Your task to perform on an android device: Empty the shopping cart on costco.com. Search for razer deathadder on costco.com, select the first entry, and add it to the cart. Image 0: 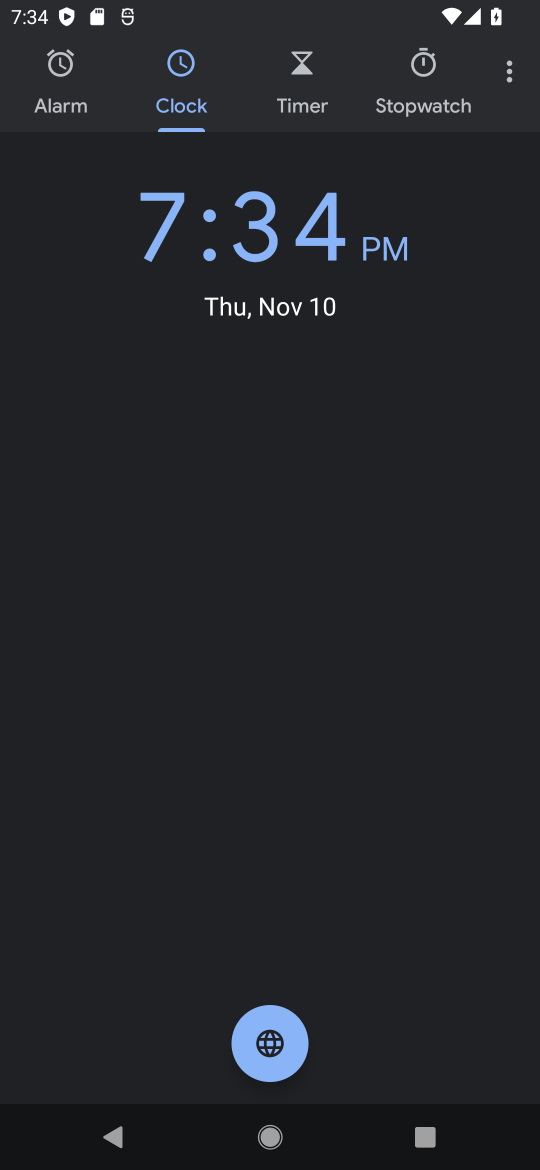
Step 0: press home button
Your task to perform on an android device: Empty the shopping cart on costco.com. Search for razer deathadder on costco.com, select the first entry, and add it to the cart. Image 1: 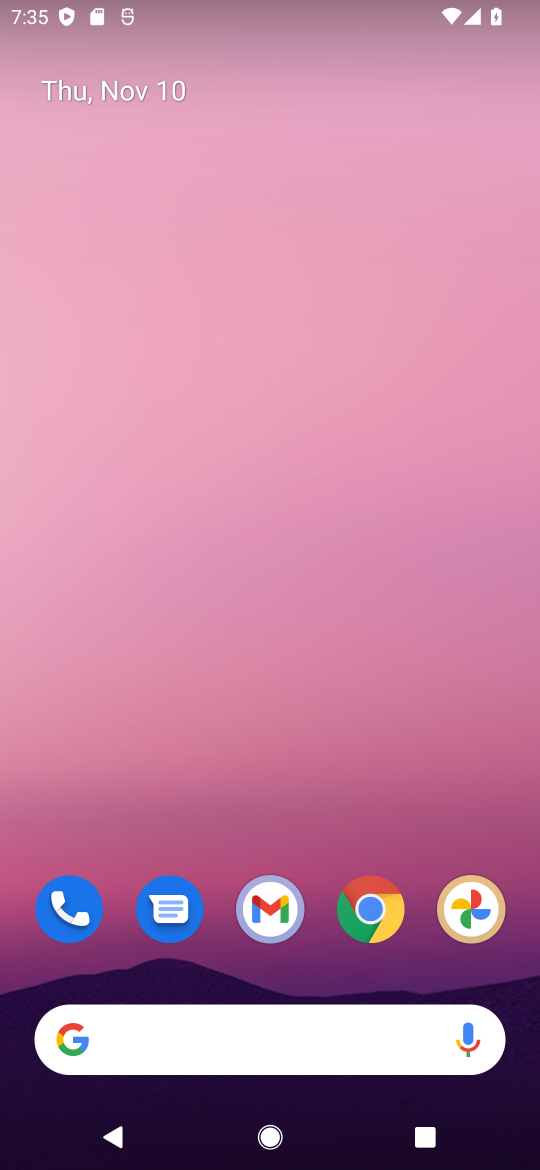
Step 1: drag from (133, 1018) to (249, 306)
Your task to perform on an android device: Empty the shopping cart on costco.com. Search for razer deathadder on costco.com, select the first entry, and add it to the cart. Image 2: 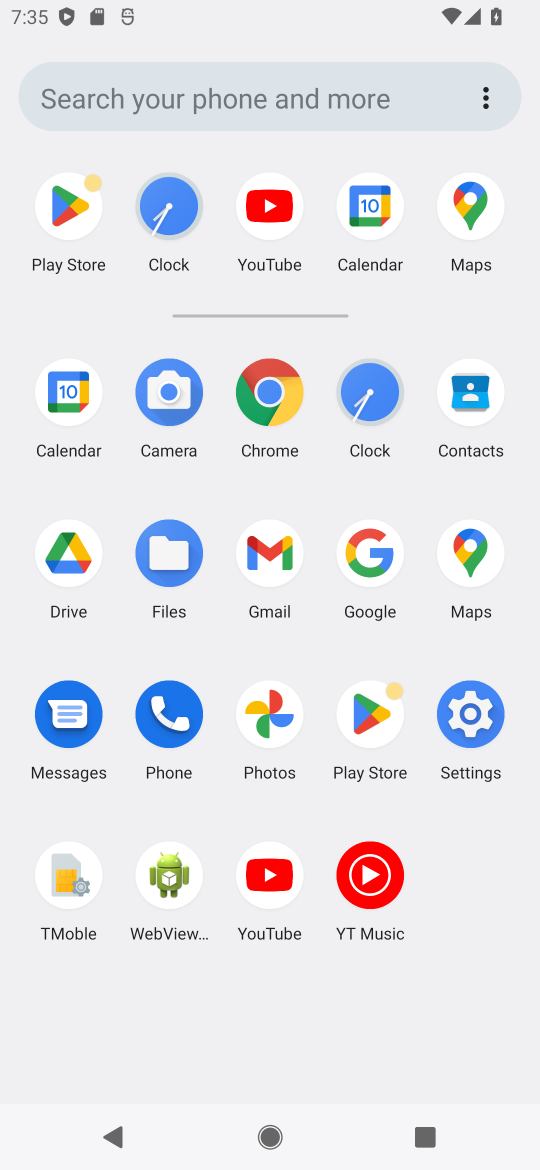
Step 2: click (366, 541)
Your task to perform on an android device: Empty the shopping cart on costco.com. Search for razer deathadder on costco.com, select the first entry, and add it to the cart. Image 3: 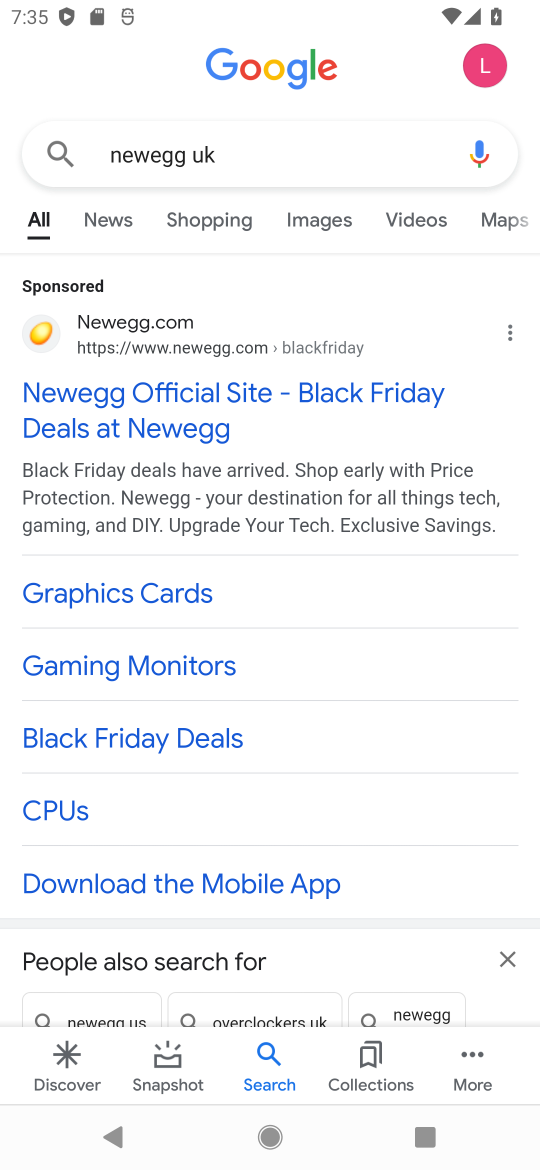
Step 3: click (237, 147)
Your task to perform on an android device: Empty the shopping cart on costco.com. Search for razer deathadder on costco.com, select the first entry, and add it to the cart. Image 4: 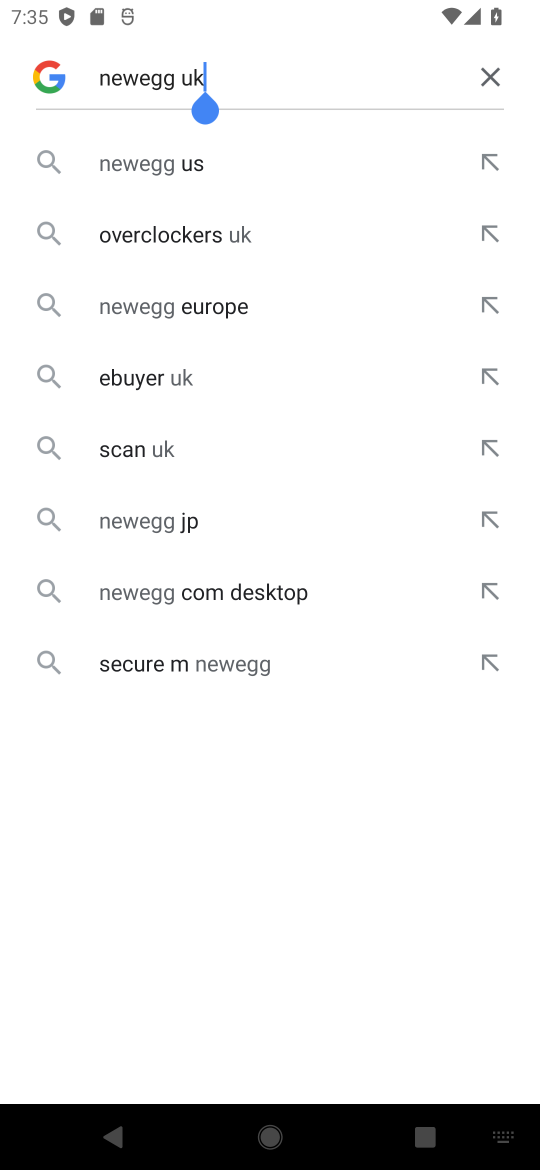
Step 4: click (487, 74)
Your task to perform on an android device: Empty the shopping cart on costco.com. Search for razer deathadder on costco.com, select the first entry, and add it to the cart. Image 5: 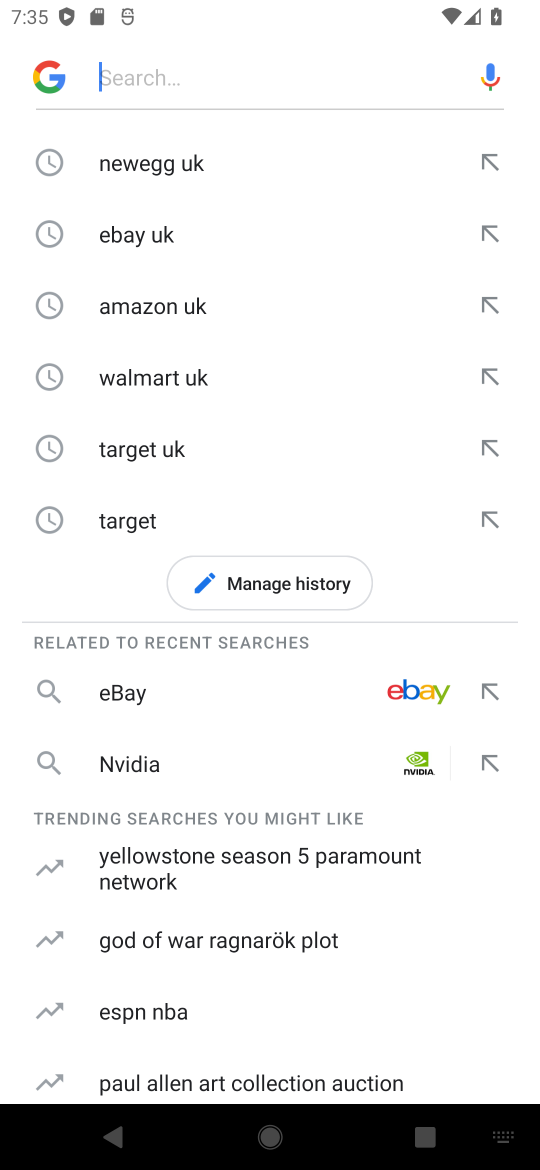
Step 5: click (224, 61)
Your task to perform on an android device: Empty the shopping cart on costco.com. Search for razer deathadder on costco.com, select the first entry, and add it to the cart. Image 6: 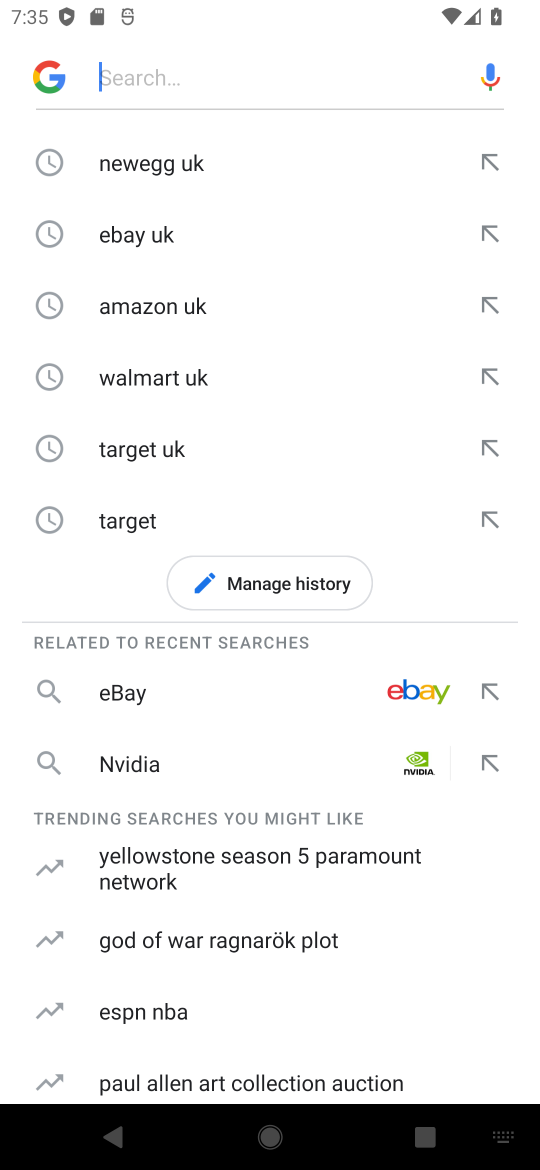
Step 6: type "costco "
Your task to perform on an android device: Empty the shopping cart on costco.com. Search for razer deathadder on costco.com, select the first entry, and add it to the cart. Image 7: 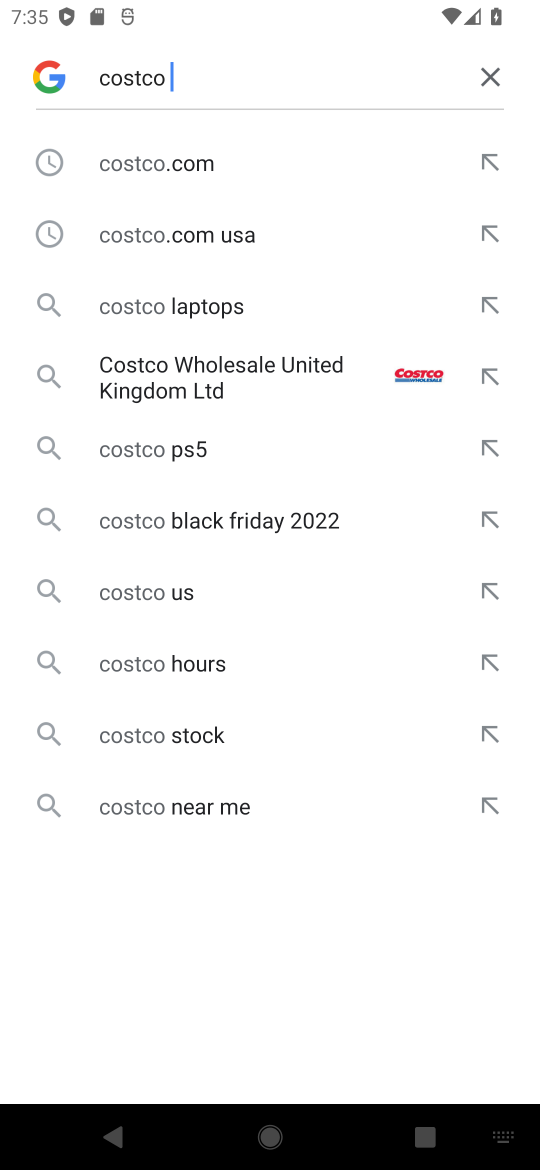
Step 7: click (207, 157)
Your task to perform on an android device: Empty the shopping cart on costco.com. Search for razer deathadder on costco.com, select the first entry, and add it to the cart. Image 8: 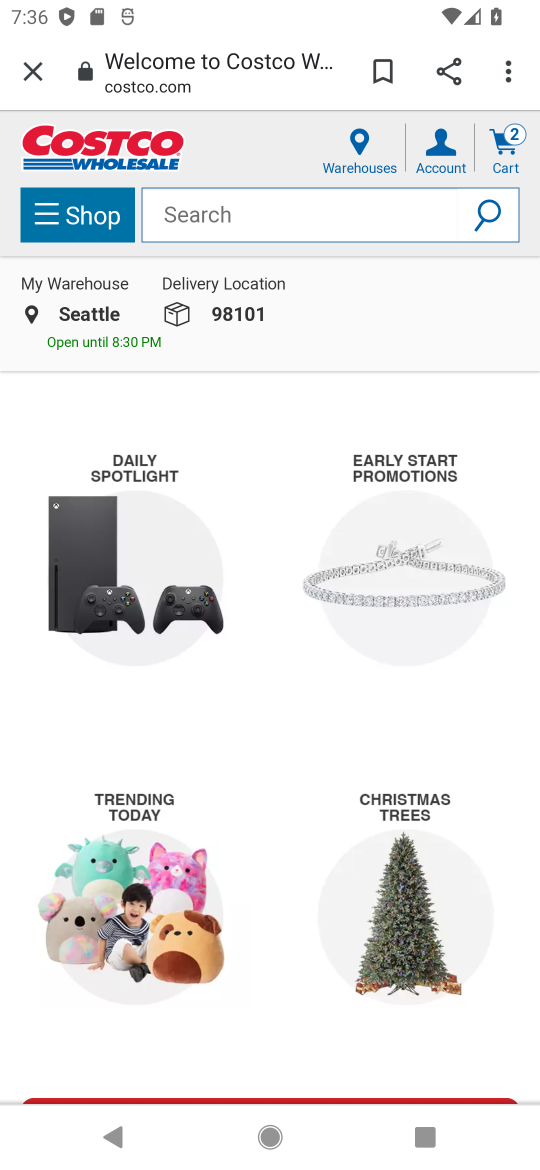
Step 8: click (180, 209)
Your task to perform on an android device: Empty the shopping cart on costco.com. Search for razer deathadder on costco.com, select the first entry, and add it to the cart. Image 9: 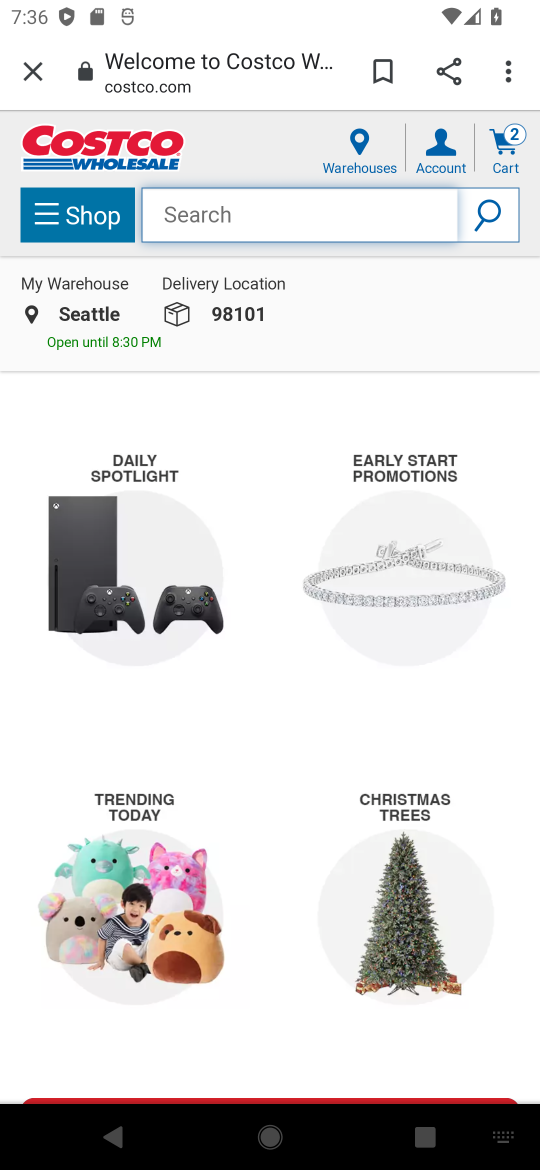
Step 9: type "razer deathadder "
Your task to perform on an android device: Empty the shopping cart on costco.com. Search for razer deathadder on costco.com, select the first entry, and add it to the cart. Image 10: 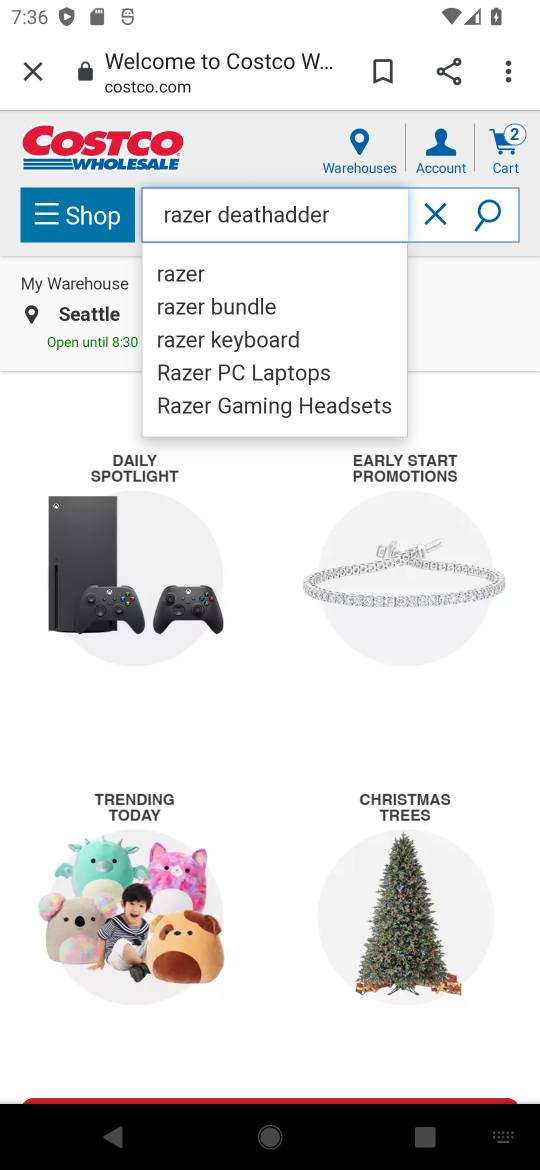
Step 10: click (476, 193)
Your task to perform on an android device: Empty the shopping cart on costco.com. Search for razer deathadder on costco.com, select the first entry, and add it to the cart. Image 11: 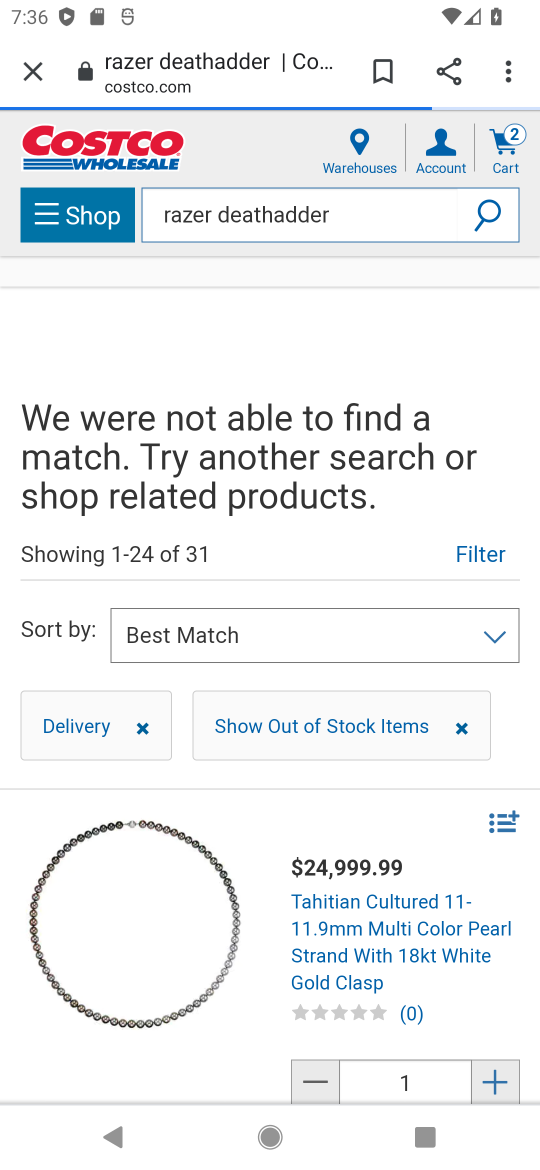
Step 11: drag from (354, 921) to (488, 315)
Your task to perform on an android device: Empty the shopping cart on costco.com. Search for razer deathadder on costco.com, select the first entry, and add it to the cart. Image 12: 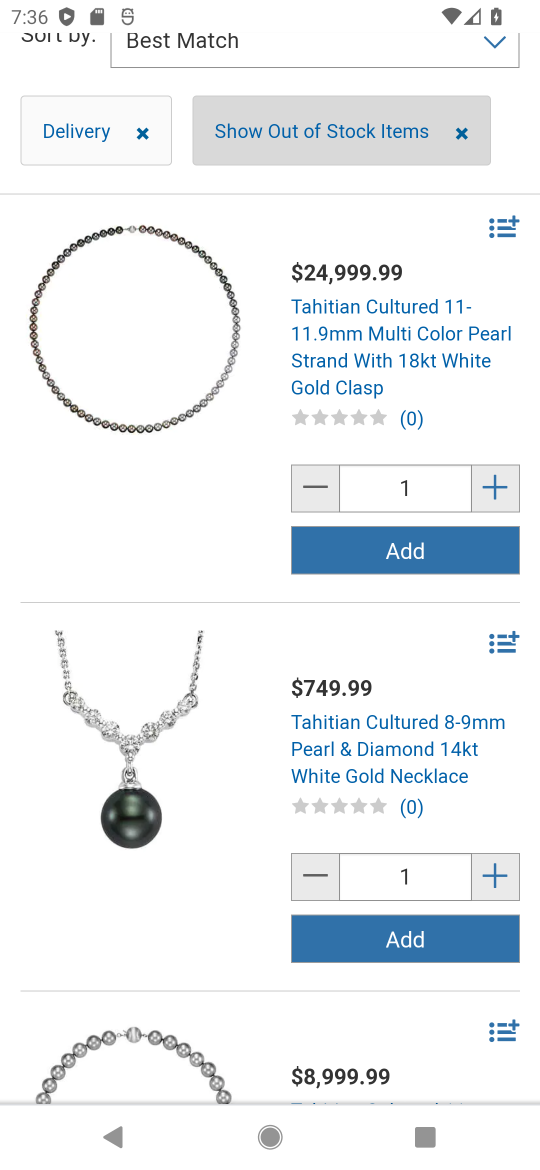
Step 12: drag from (205, 859) to (197, 339)
Your task to perform on an android device: Empty the shopping cart on costco.com. Search for razer deathadder on costco.com, select the first entry, and add it to the cart. Image 13: 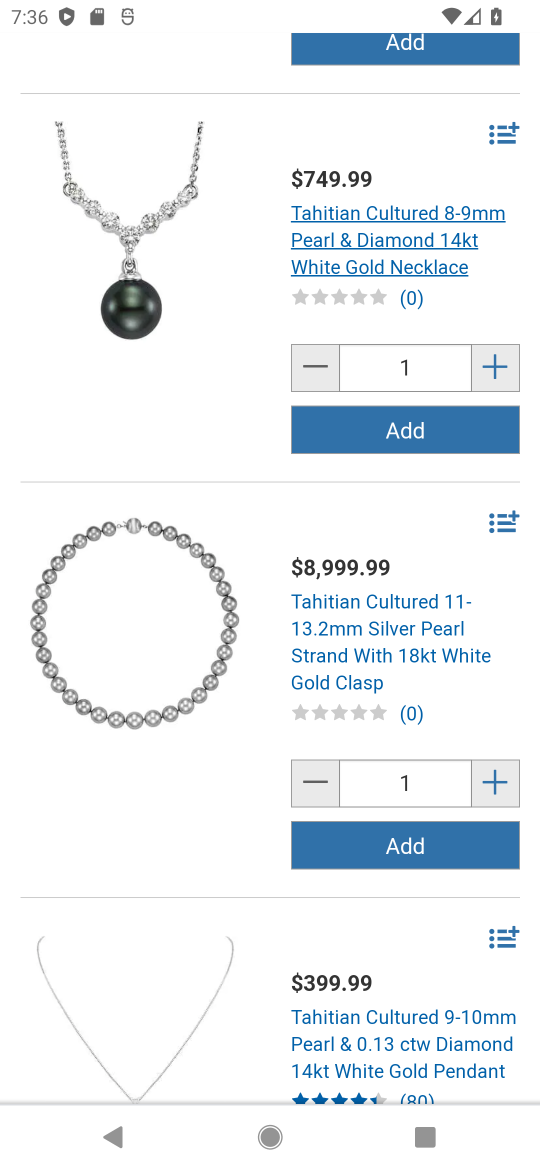
Step 13: drag from (64, 902) to (234, 354)
Your task to perform on an android device: Empty the shopping cart on costco.com. Search for razer deathadder on costco.com, select the first entry, and add it to the cart. Image 14: 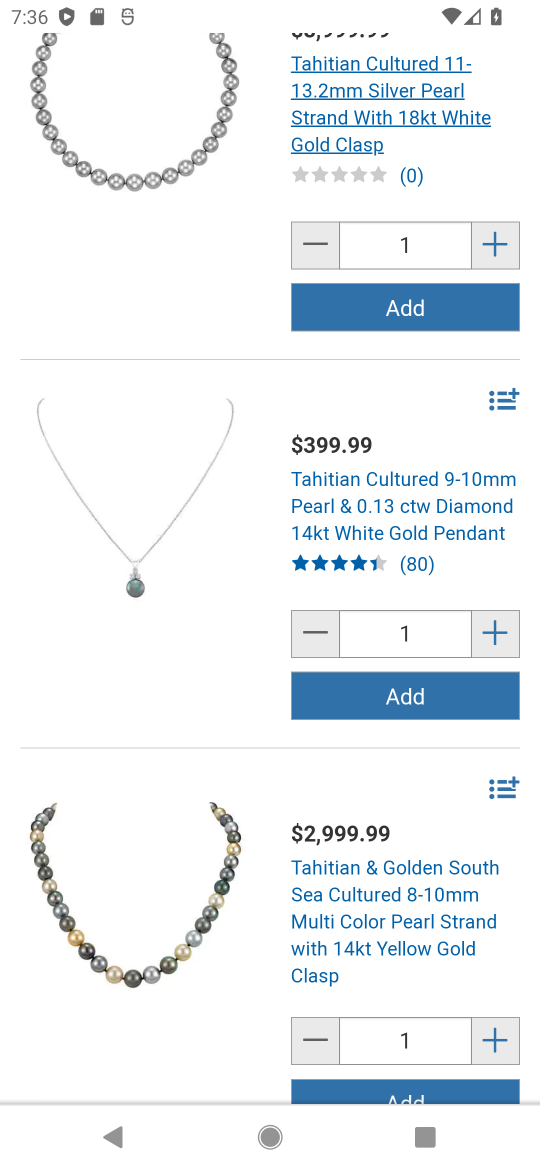
Step 14: drag from (350, 160) to (235, 1157)
Your task to perform on an android device: Empty the shopping cart on costco.com. Search for razer deathadder on costco.com, select the first entry, and add it to the cart. Image 15: 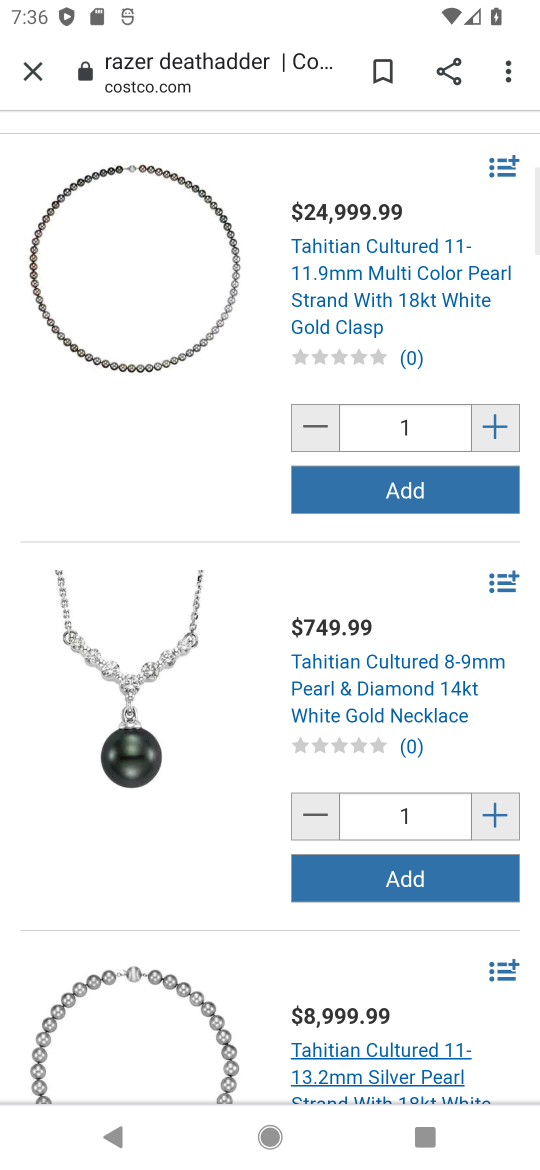
Step 15: drag from (287, 371) to (237, 742)
Your task to perform on an android device: Empty the shopping cart on costco.com. Search for razer deathadder on costco.com, select the first entry, and add it to the cart. Image 16: 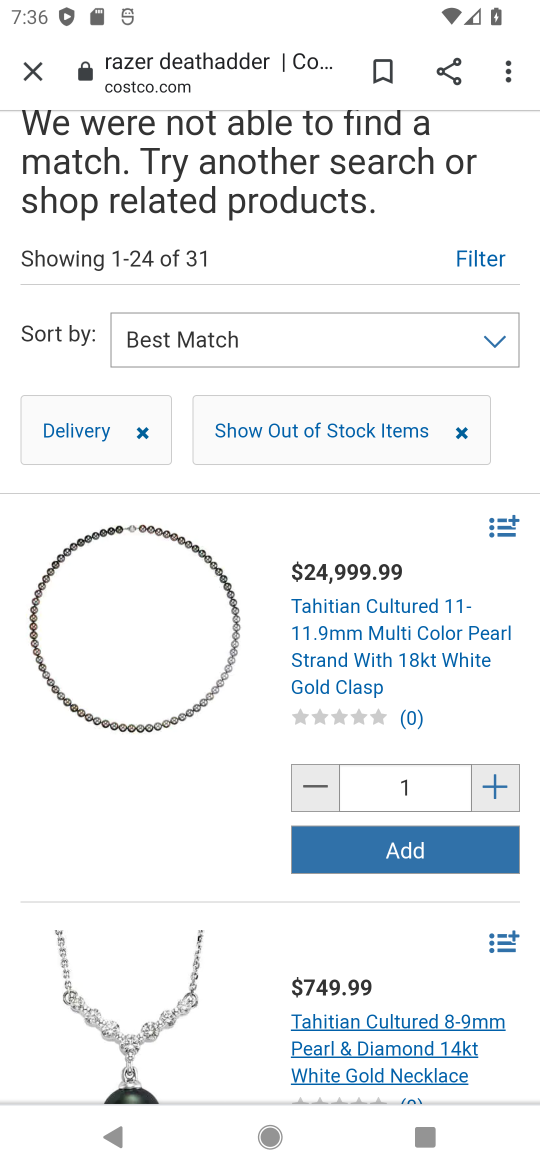
Step 16: drag from (196, 226) to (154, 1156)
Your task to perform on an android device: Empty the shopping cart on costco.com. Search for razer deathadder on costco.com, select the first entry, and add it to the cart. Image 17: 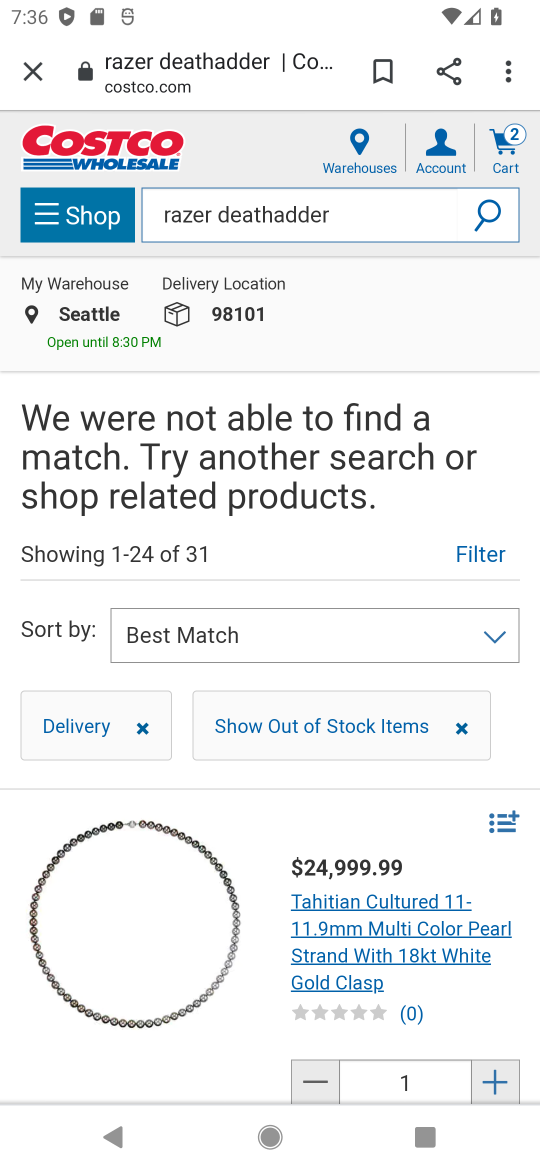
Step 17: click (322, 208)
Your task to perform on an android device: Empty the shopping cart on costco.com. Search for razer deathadder on costco.com, select the first entry, and add it to the cart. Image 18: 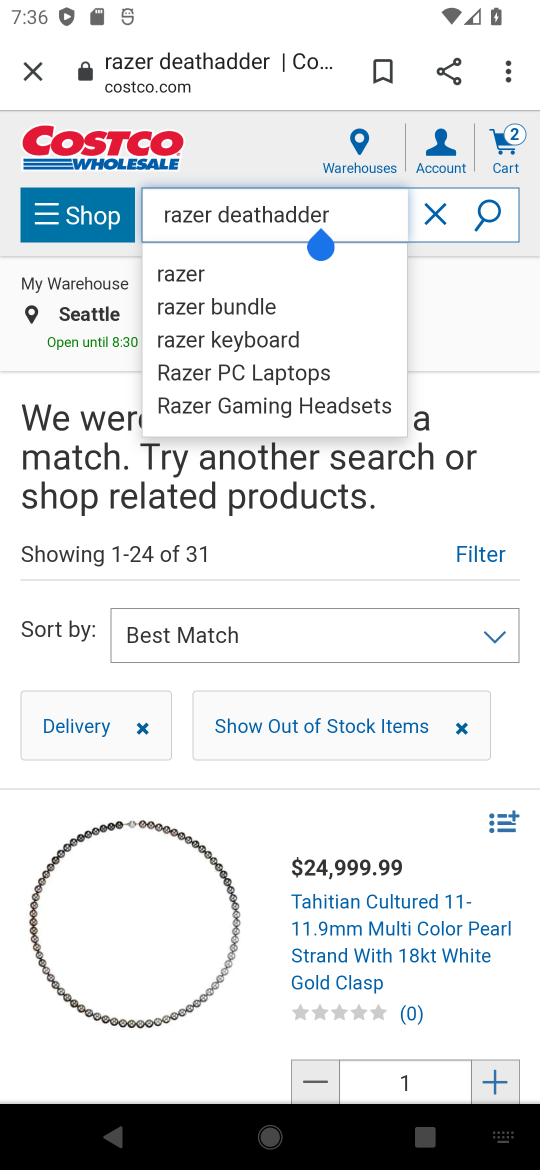
Step 18: click (437, 206)
Your task to perform on an android device: Empty the shopping cart on costco.com. Search for razer deathadder on costco.com, select the first entry, and add it to the cart. Image 19: 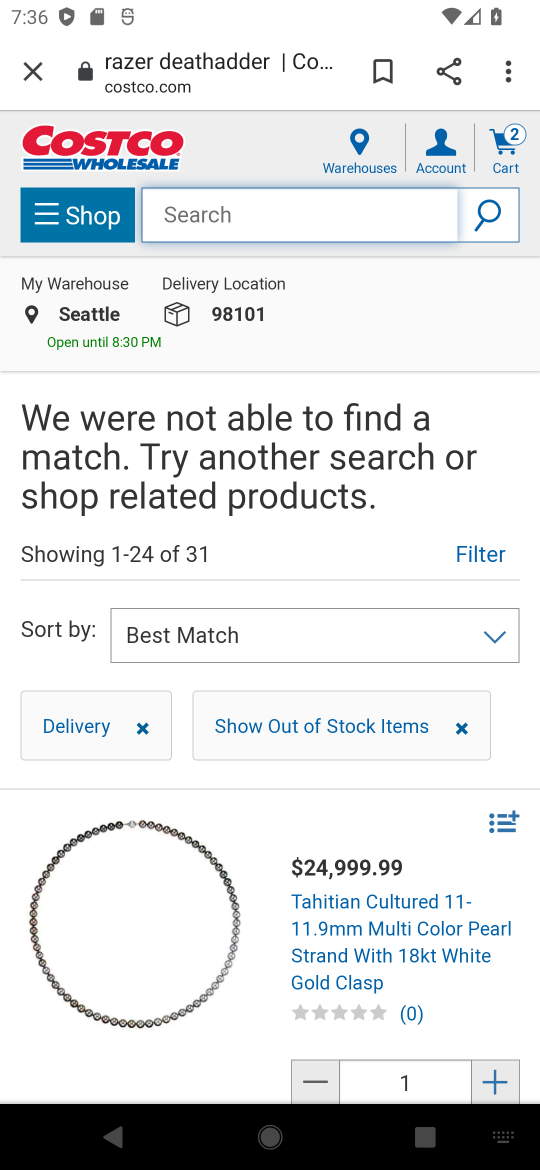
Step 19: click (265, 191)
Your task to perform on an android device: Empty the shopping cart on costco.com. Search for razer deathadder on costco.com, select the first entry, and add it to the cart. Image 20: 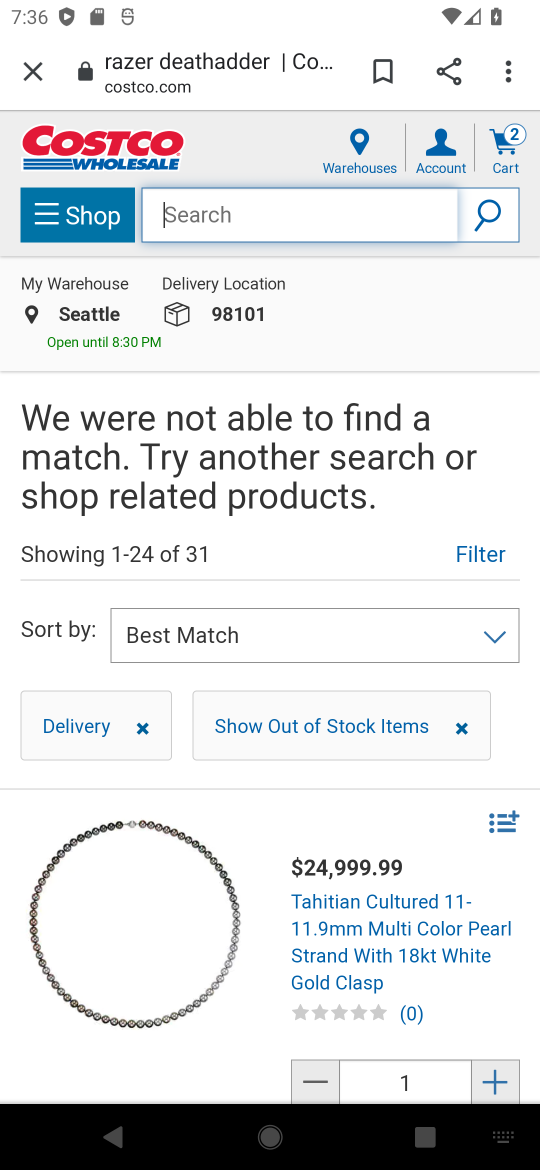
Step 20: click (265, 197)
Your task to perform on an android device: Empty the shopping cart on costco.com. Search for razer deathadder on costco.com, select the first entry, and add it to the cart. Image 21: 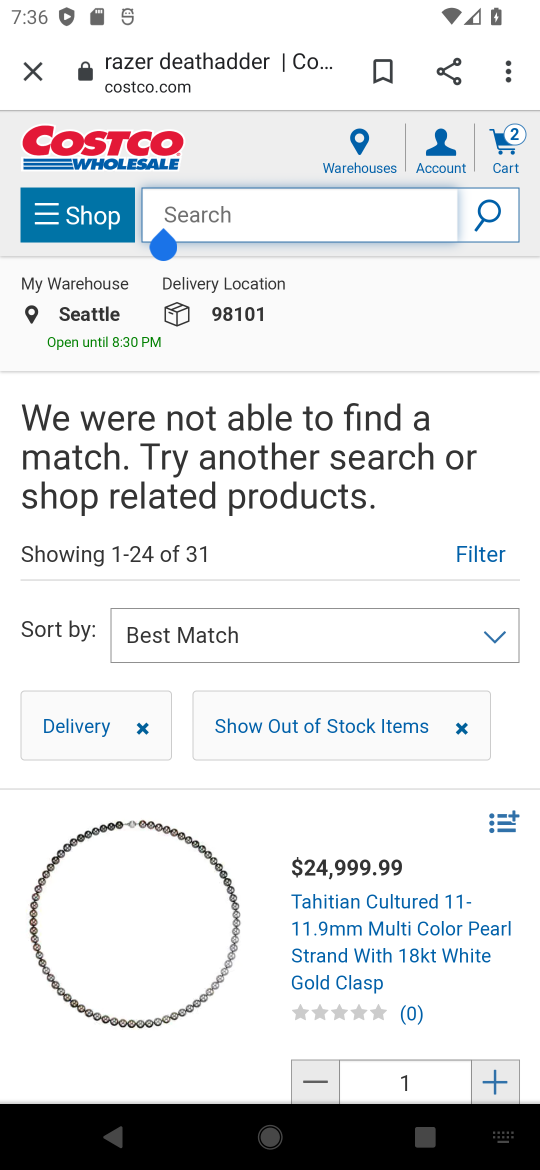
Step 21: type "razer "
Your task to perform on an android device: Empty the shopping cart on costco.com. Search for razer deathadder on costco.com, select the first entry, and add it to the cart. Image 22: 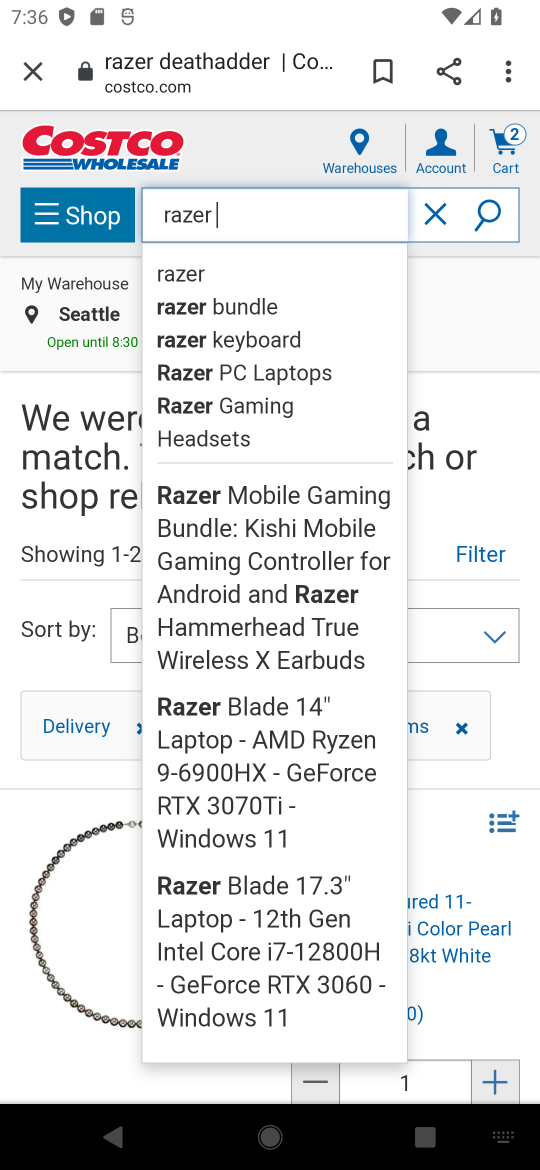
Step 22: click (483, 204)
Your task to perform on an android device: Empty the shopping cart on costco.com. Search for razer deathadder on costco.com, select the first entry, and add it to the cart. Image 23: 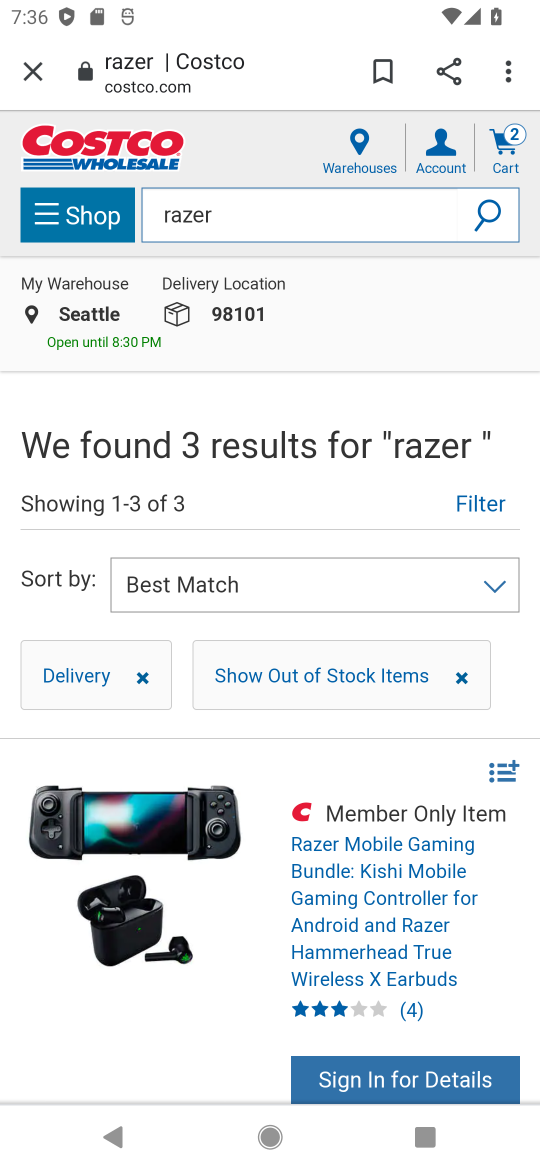
Step 23: drag from (229, 910) to (339, 375)
Your task to perform on an android device: Empty the shopping cart on costco.com. Search for razer deathadder on costco.com, select the first entry, and add it to the cart. Image 24: 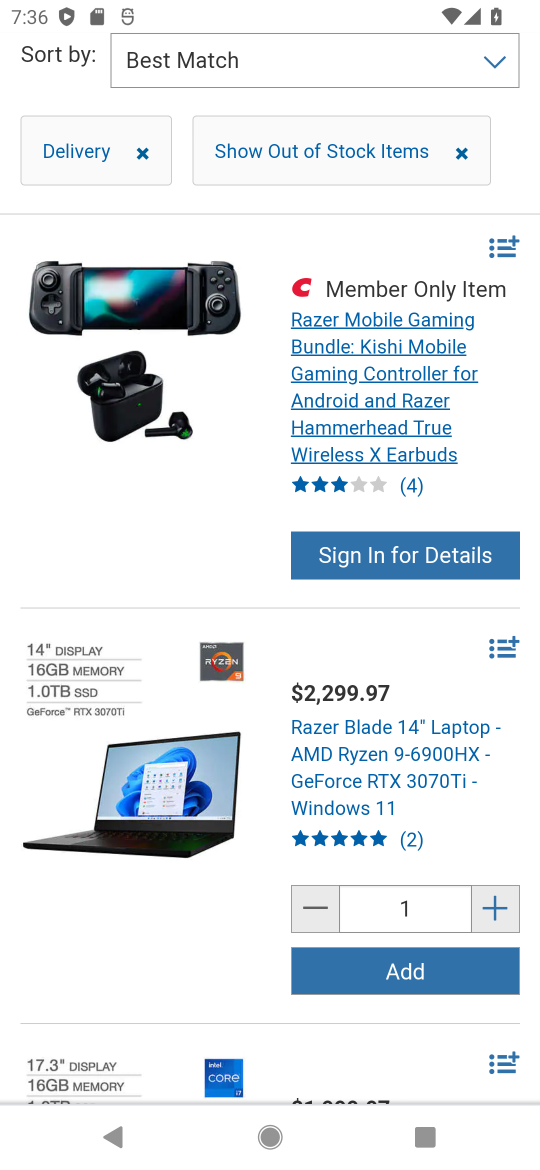
Step 24: drag from (137, 842) to (199, 360)
Your task to perform on an android device: Empty the shopping cart on costco.com. Search for razer deathadder on costco.com, select the first entry, and add it to the cart. Image 25: 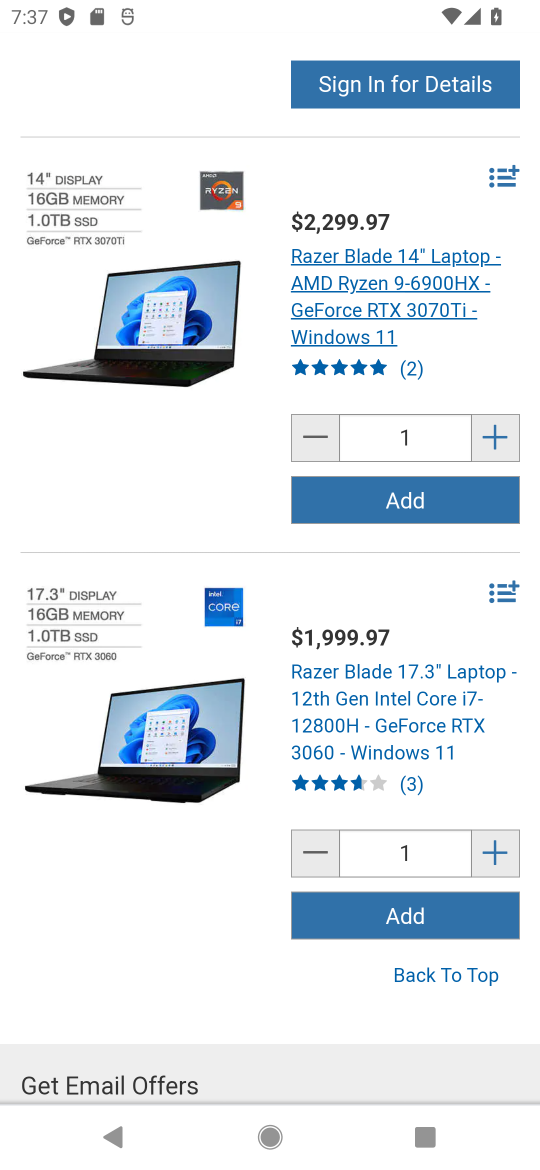
Step 25: drag from (224, 963) to (254, 669)
Your task to perform on an android device: Empty the shopping cart on costco.com. Search for razer deathadder on costco.com, select the first entry, and add it to the cart. Image 26: 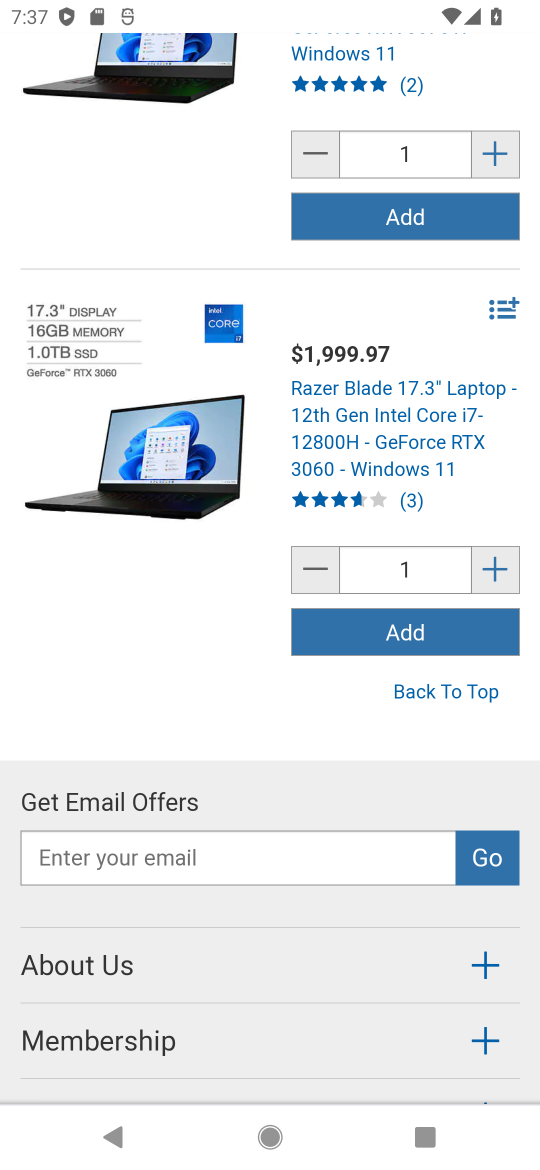
Step 26: drag from (214, 202) to (175, 1033)
Your task to perform on an android device: Empty the shopping cart on costco.com. Search for razer deathadder on costco.com, select the first entry, and add it to the cart. Image 27: 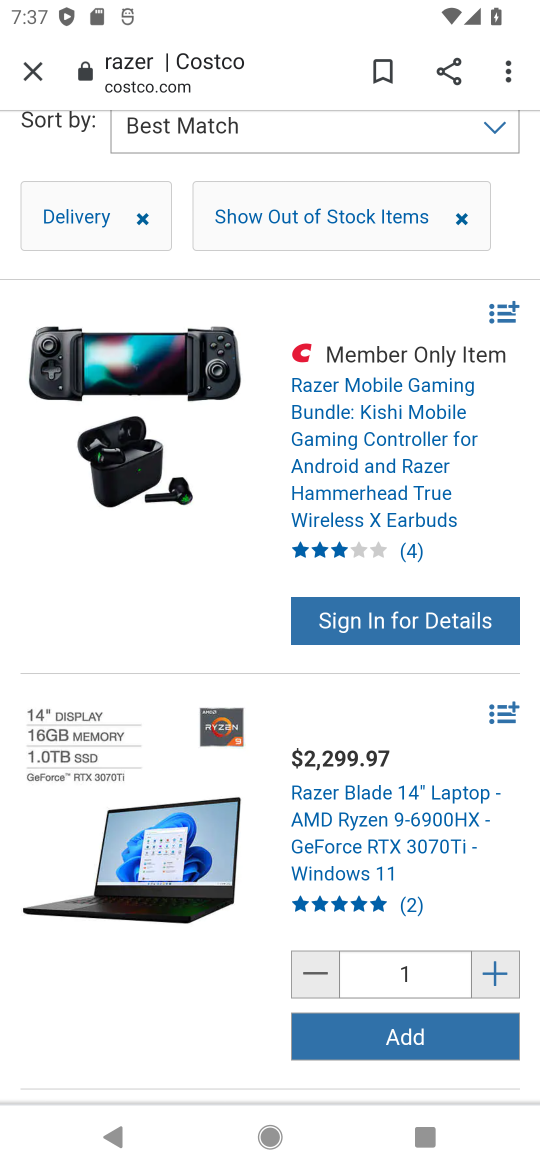
Step 27: drag from (248, 482) to (296, 267)
Your task to perform on an android device: Empty the shopping cart on costco.com. Search for razer deathadder on costco.com, select the first entry, and add it to the cart. Image 28: 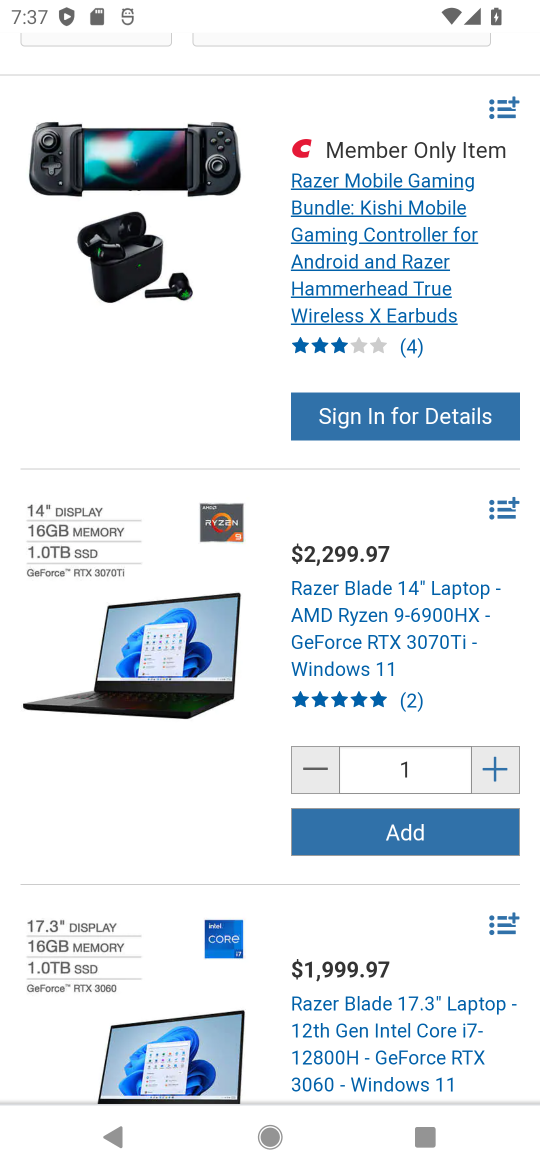
Step 28: drag from (247, 984) to (353, 310)
Your task to perform on an android device: Empty the shopping cart on costco.com. Search for razer deathadder on costco.com, select the first entry, and add it to the cart. Image 29: 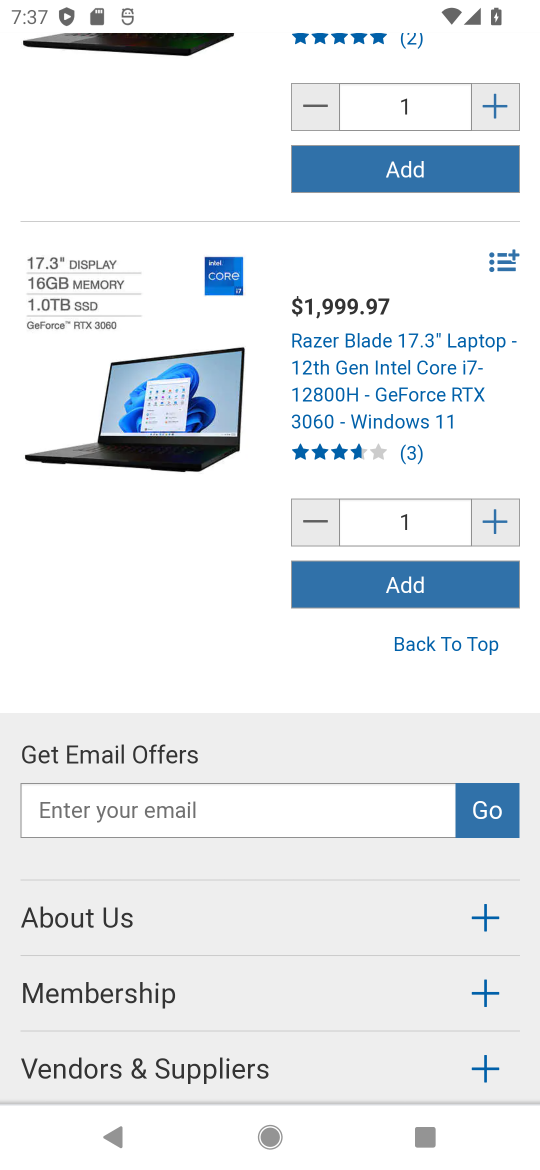
Step 29: click (325, 312)
Your task to perform on an android device: Empty the shopping cart on costco.com. Search for razer deathadder on costco.com, select the first entry, and add it to the cart. Image 30: 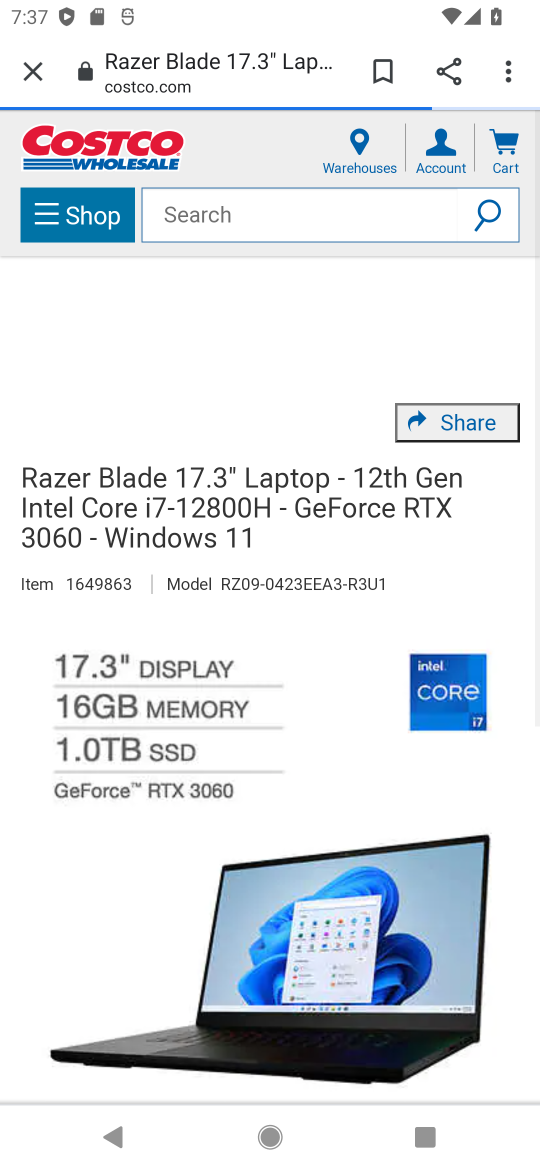
Step 30: drag from (287, 1038) to (396, 407)
Your task to perform on an android device: Empty the shopping cart on costco.com. Search for razer deathadder on costco.com, select the first entry, and add it to the cart. Image 31: 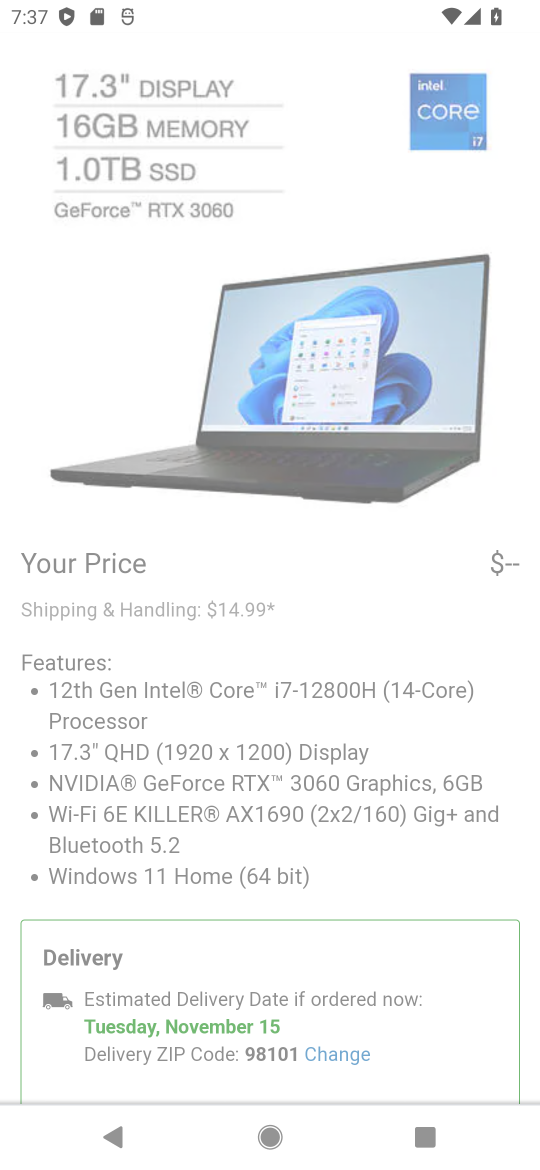
Step 31: drag from (227, 958) to (361, 401)
Your task to perform on an android device: Empty the shopping cart on costco.com. Search for razer deathadder on costco.com, select the first entry, and add it to the cart. Image 32: 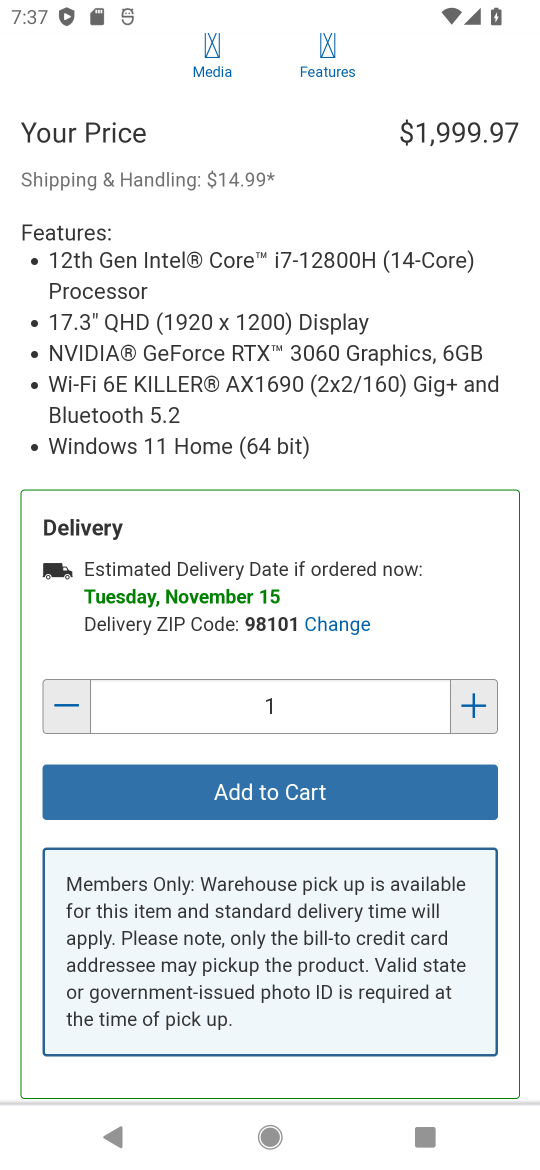
Step 32: click (280, 691)
Your task to perform on an android device: Empty the shopping cart on costco.com. Search for razer deathadder on costco.com, select the first entry, and add it to the cart. Image 33: 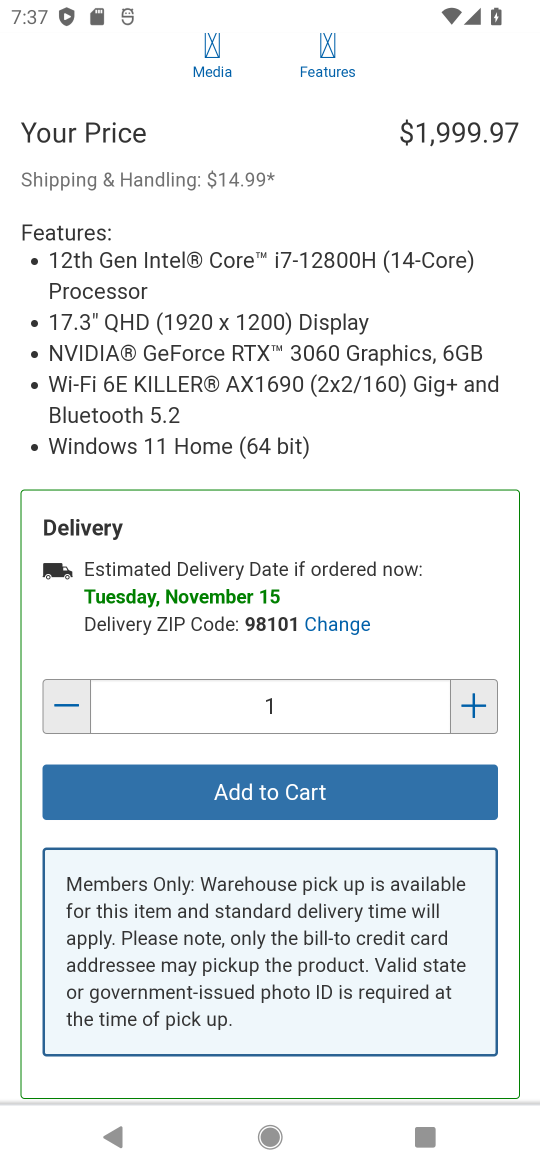
Step 33: click (277, 788)
Your task to perform on an android device: Empty the shopping cart on costco.com. Search for razer deathadder on costco.com, select the first entry, and add it to the cart. Image 34: 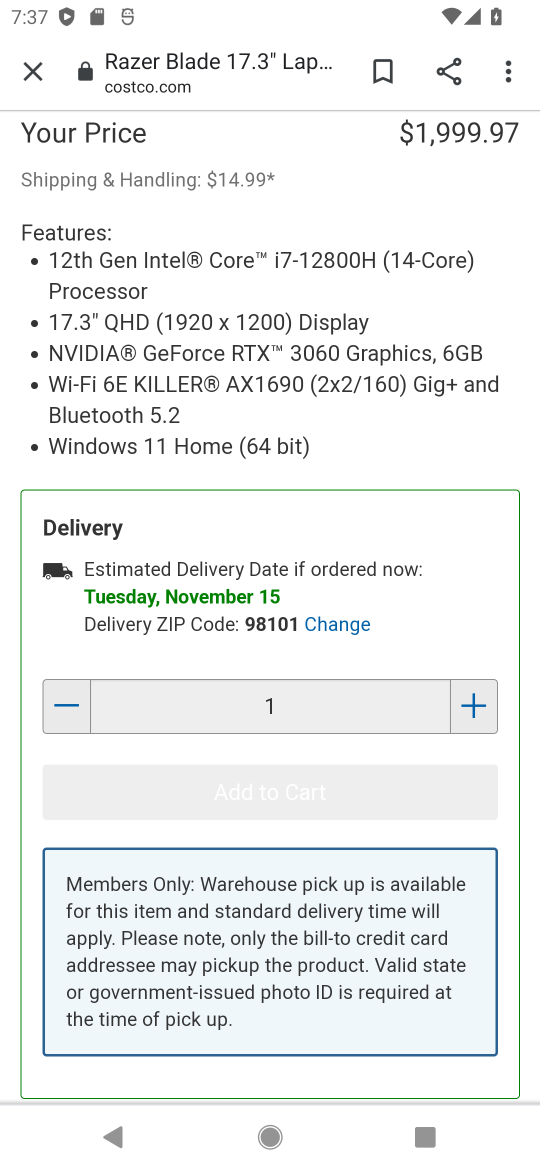
Step 34: click (277, 788)
Your task to perform on an android device: Empty the shopping cart on costco.com. Search for razer deathadder on costco.com, select the first entry, and add it to the cart. Image 35: 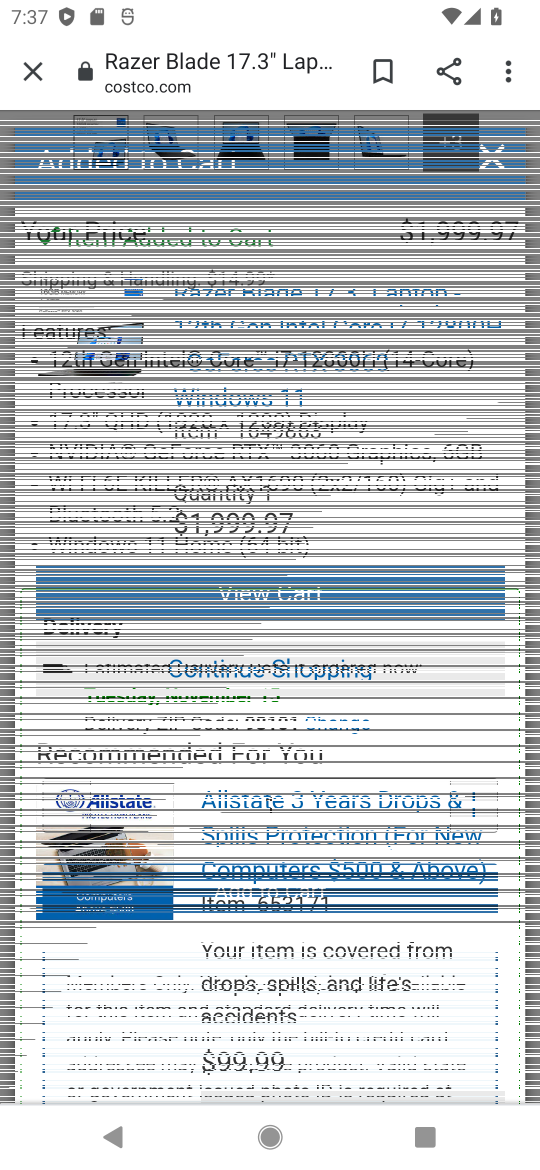
Step 35: task complete